Your task to perform on an android device: move a message to another label in the gmail app Image 0: 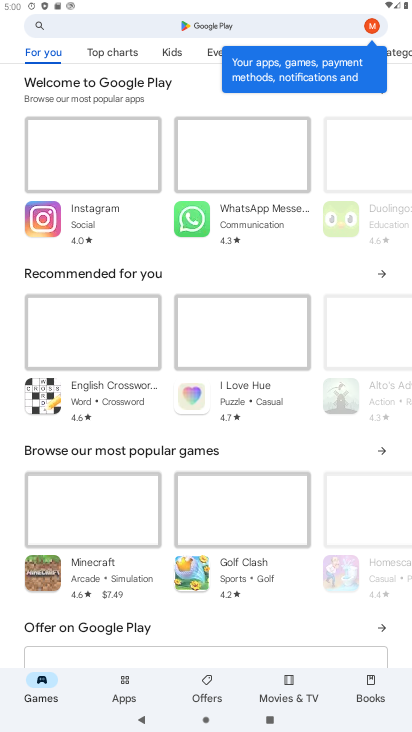
Step 0: press home button
Your task to perform on an android device: move a message to another label in the gmail app Image 1: 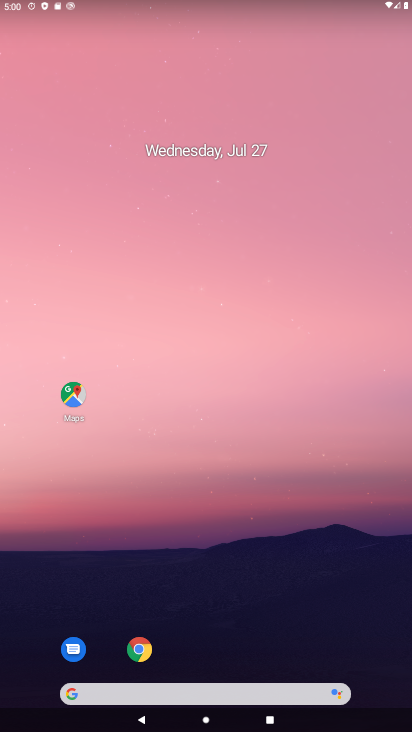
Step 1: drag from (191, 693) to (271, 25)
Your task to perform on an android device: move a message to another label in the gmail app Image 2: 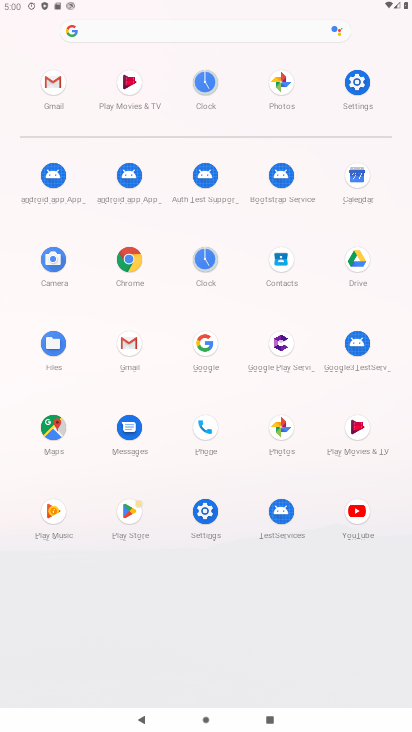
Step 2: click (128, 340)
Your task to perform on an android device: move a message to another label in the gmail app Image 3: 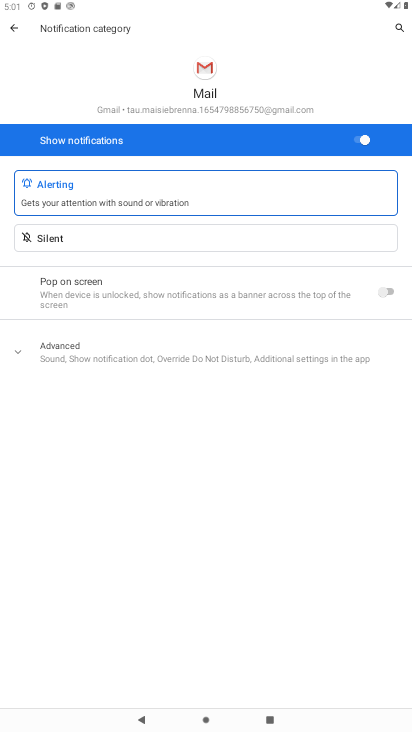
Step 3: press back button
Your task to perform on an android device: move a message to another label in the gmail app Image 4: 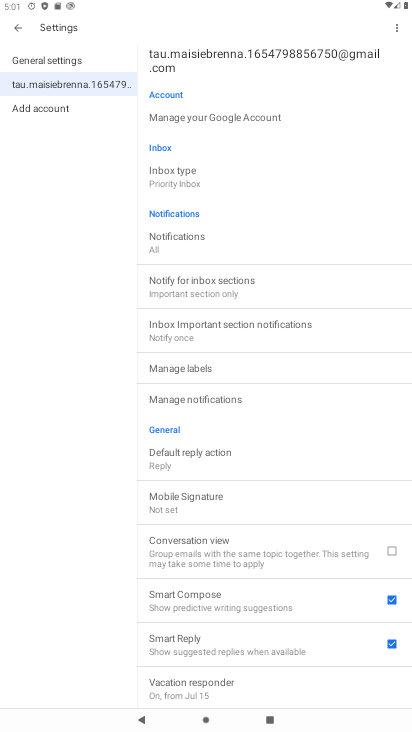
Step 4: press back button
Your task to perform on an android device: move a message to another label in the gmail app Image 5: 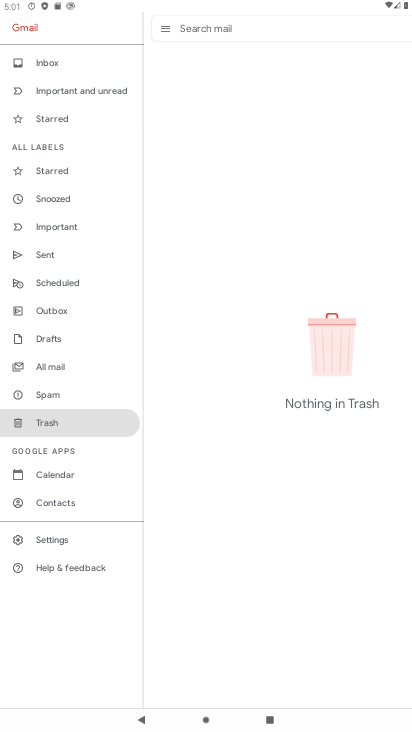
Step 5: click (40, 387)
Your task to perform on an android device: move a message to another label in the gmail app Image 6: 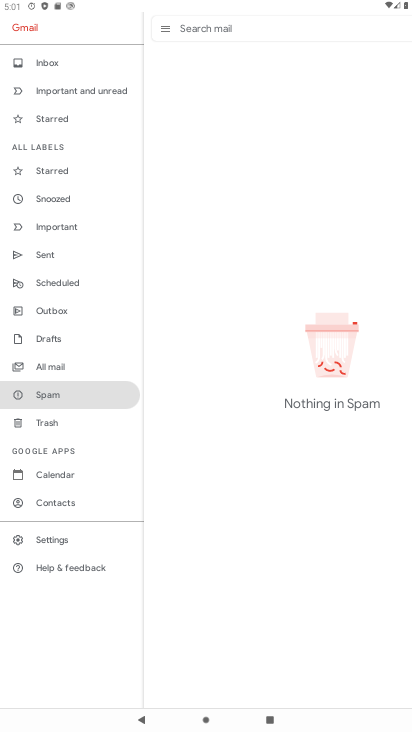
Step 6: click (55, 364)
Your task to perform on an android device: move a message to another label in the gmail app Image 7: 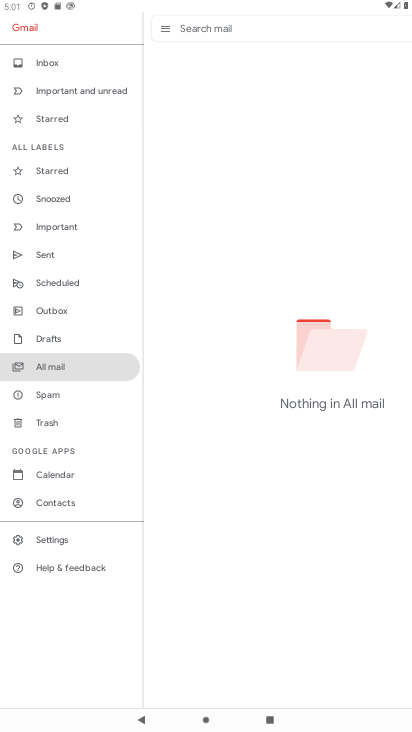
Step 7: click (51, 339)
Your task to perform on an android device: move a message to another label in the gmail app Image 8: 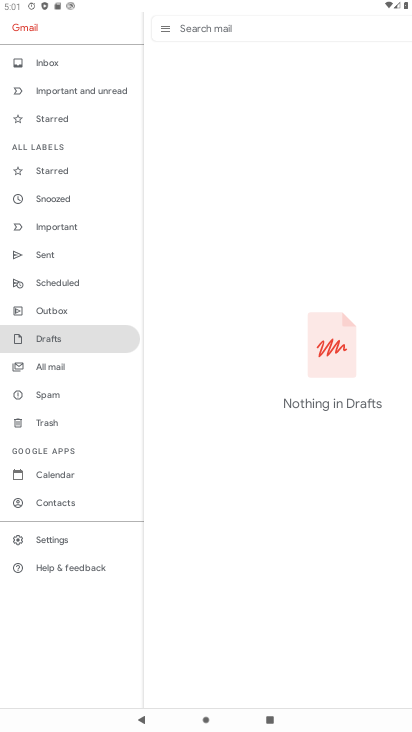
Step 8: click (64, 312)
Your task to perform on an android device: move a message to another label in the gmail app Image 9: 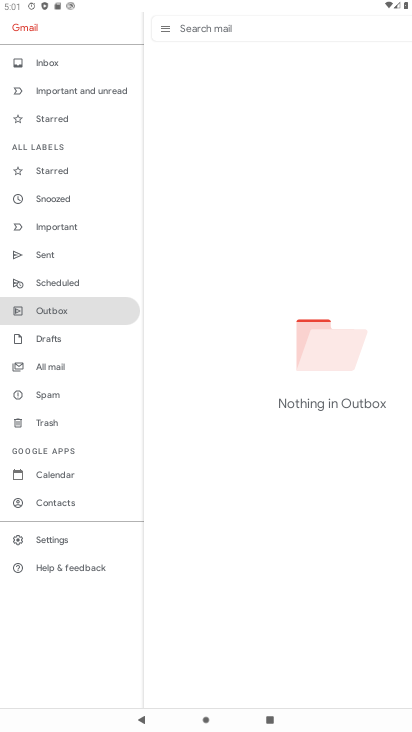
Step 9: click (72, 276)
Your task to perform on an android device: move a message to another label in the gmail app Image 10: 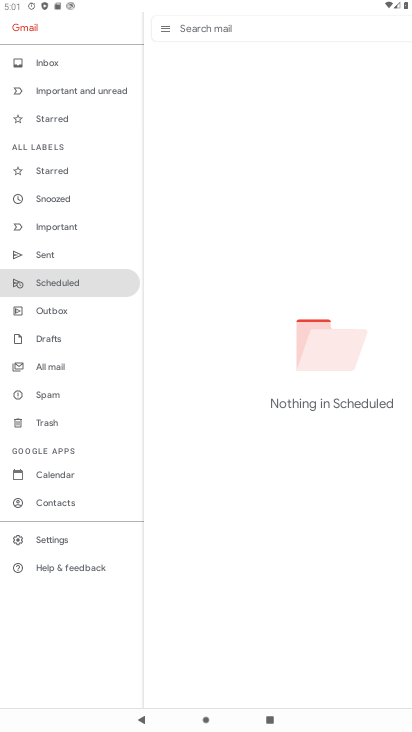
Step 10: click (47, 245)
Your task to perform on an android device: move a message to another label in the gmail app Image 11: 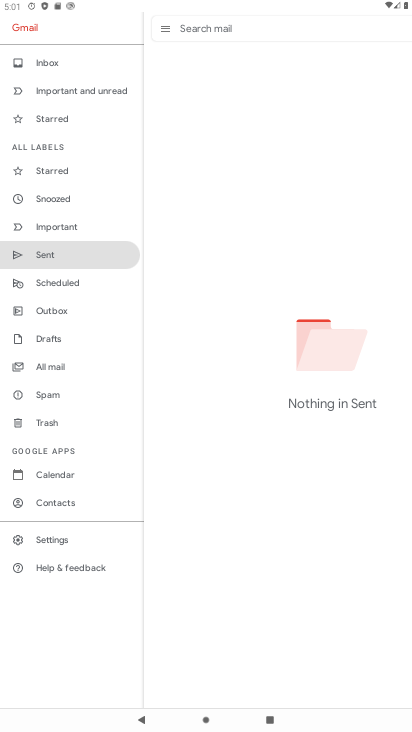
Step 11: click (56, 222)
Your task to perform on an android device: move a message to another label in the gmail app Image 12: 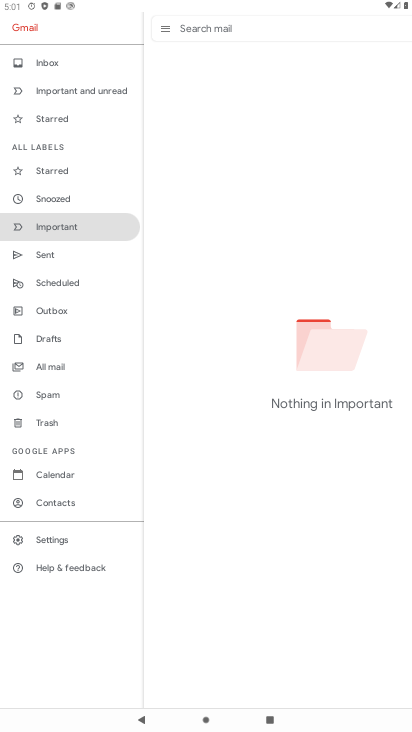
Step 12: click (56, 203)
Your task to perform on an android device: move a message to another label in the gmail app Image 13: 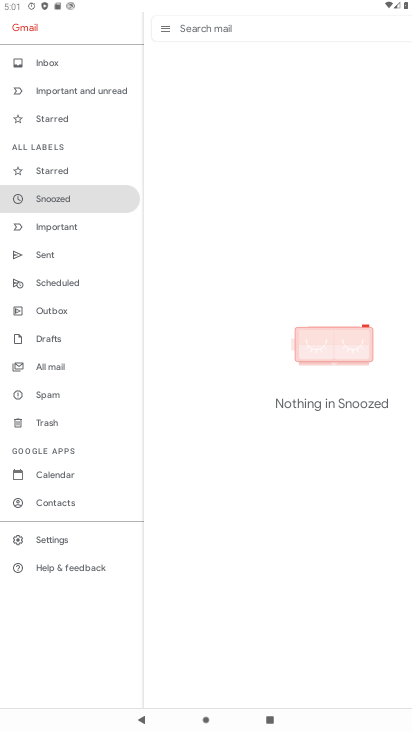
Step 13: click (53, 174)
Your task to perform on an android device: move a message to another label in the gmail app Image 14: 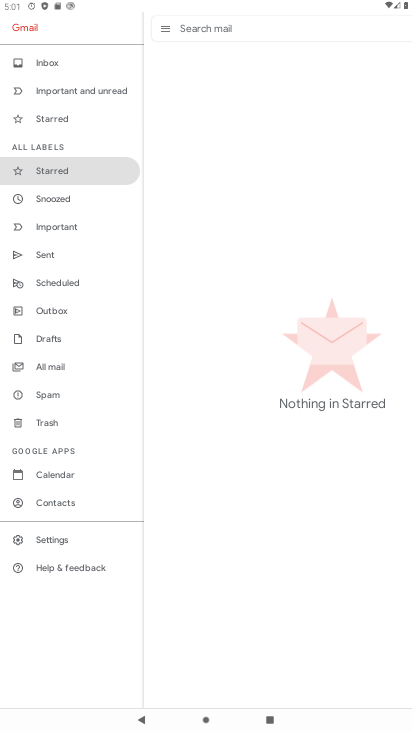
Step 14: click (42, 147)
Your task to perform on an android device: move a message to another label in the gmail app Image 15: 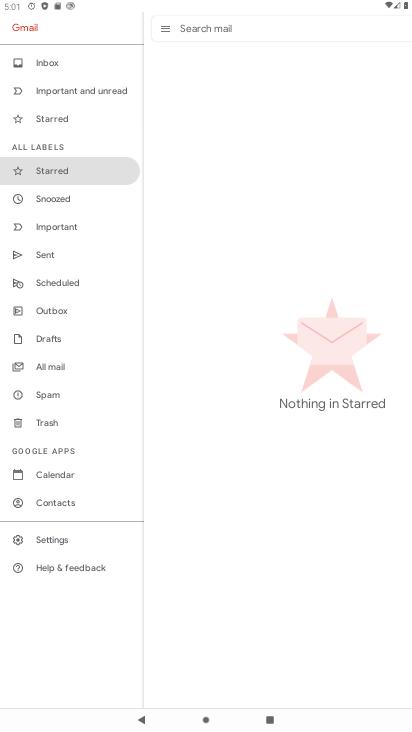
Step 15: click (59, 111)
Your task to perform on an android device: move a message to another label in the gmail app Image 16: 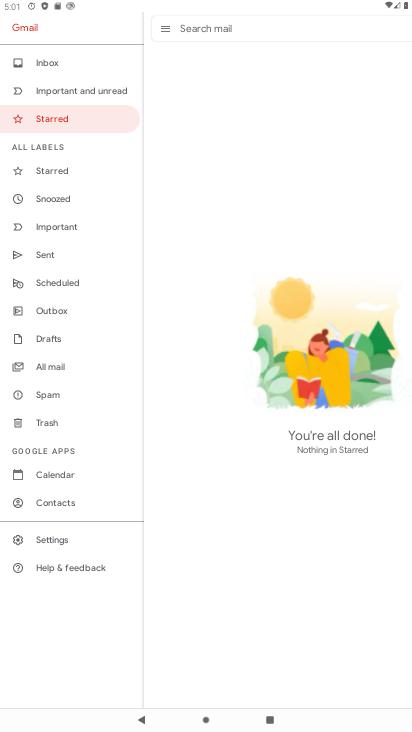
Step 16: click (68, 96)
Your task to perform on an android device: move a message to another label in the gmail app Image 17: 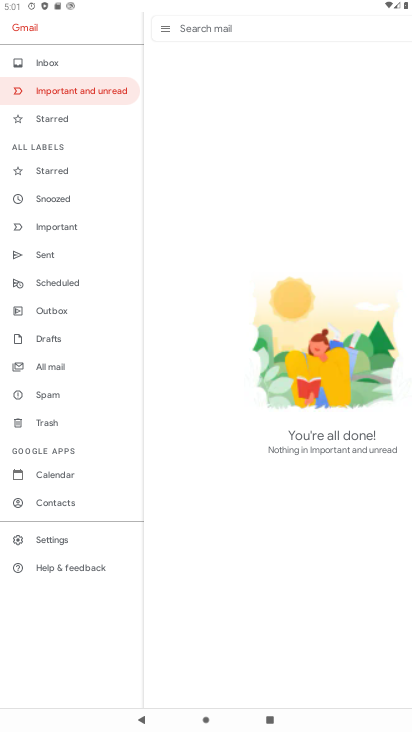
Step 17: click (37, 57)
Your task to perform on an android device: move a message to another label in the gmail app Image 18: 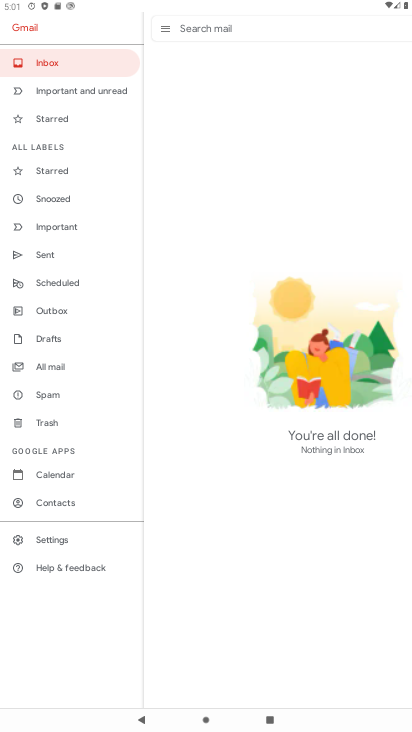
Step 18: task complete